Your task to perform on an android device: change notifications settings Image 0: 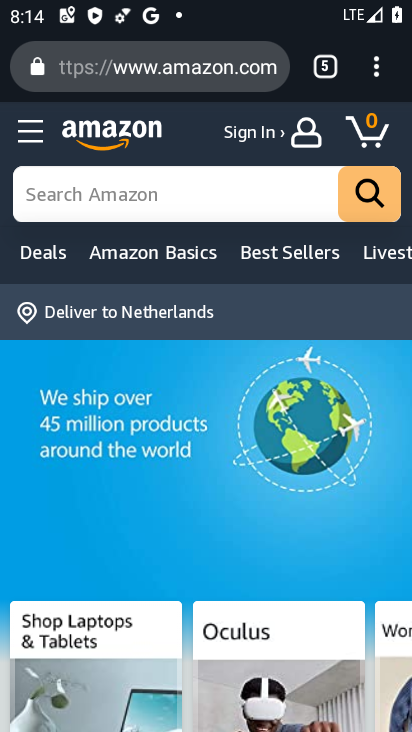
Step 0: press home button
Your task to perform on an android device: change notifications settings Image 1: 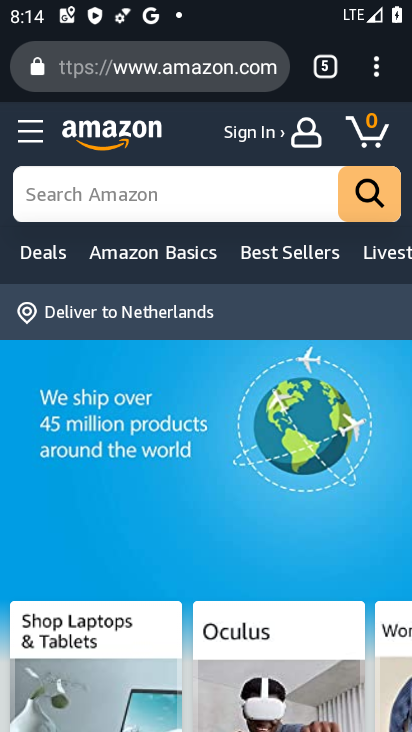
Step 1: press home button
Your task to perform on an android device: change notifications settings Image 2: 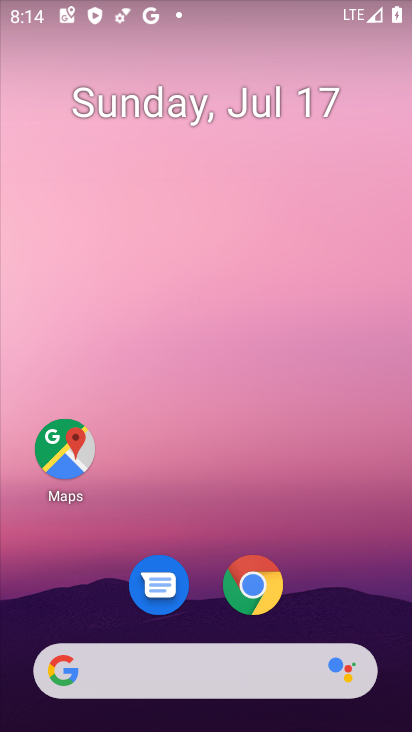
Step 2: drag from (337, 583) to (242, 47)
Your task to perform on an android device: change notifications settings Image 3: 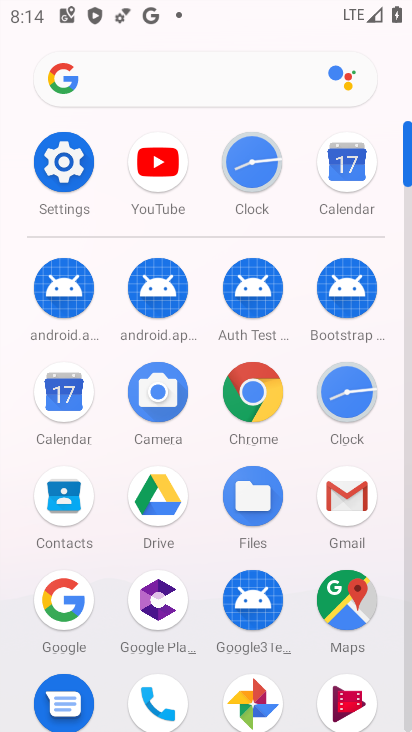
Step 3: click (60, 156)
Your task to perform on an android device: change notifications settings Image 4: 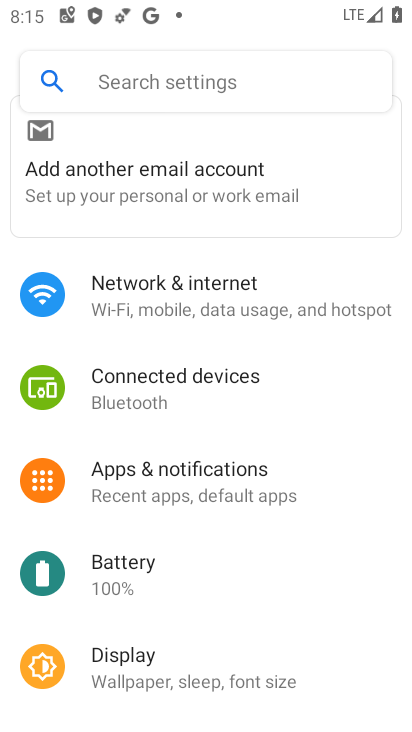
Step 4: click (217, 494)
Your task to perform on an android device: change notifications settings Image 5: 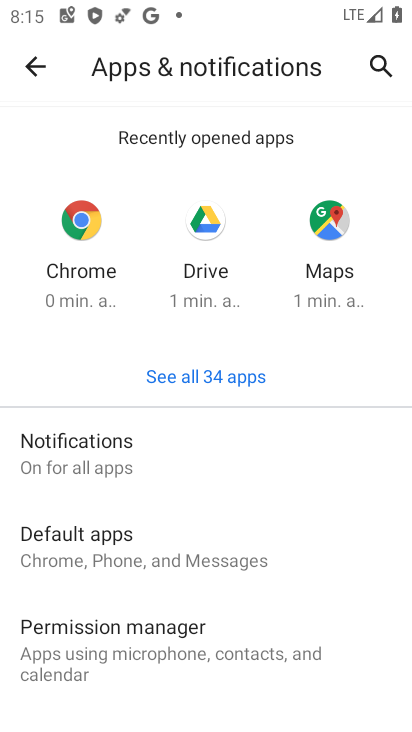
Step 5: click (89, 459)
Your task to perform on an android device: change notifications settings Image 6: 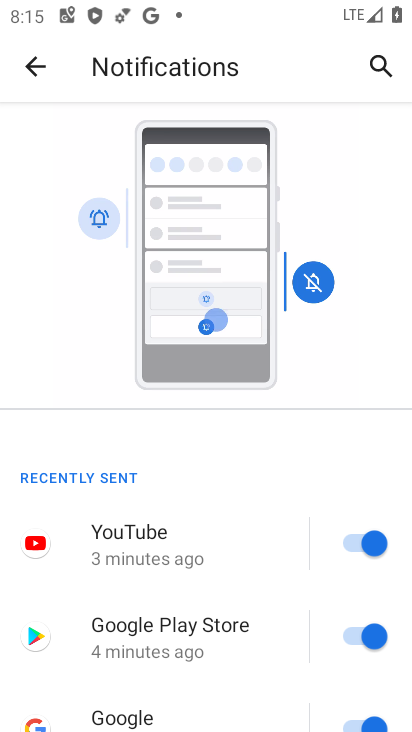
Step 6: drag from (284, 656) to (327, 176)
Your task to perform on an android device: change notifications settings Image 7: 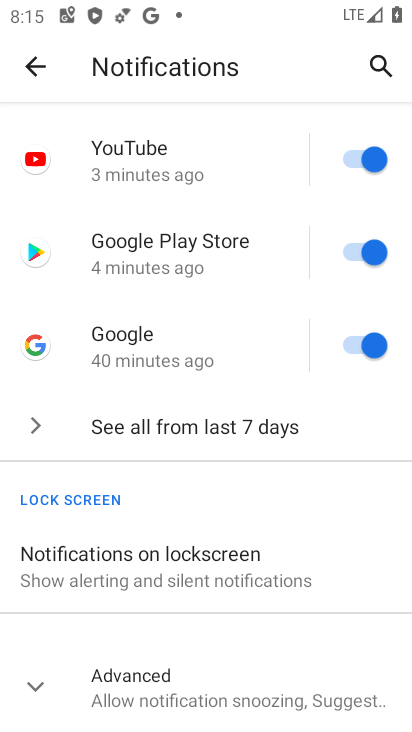
Step 7: click (285, 437)
Your task to perform on an android device: change notifications settings Image 8: 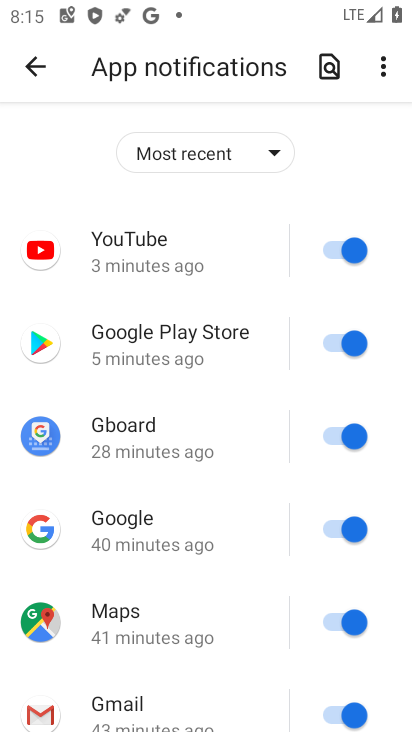
Step 8: click (351, 253)
Your task to perform on an android device: change notifications settings Image 9: 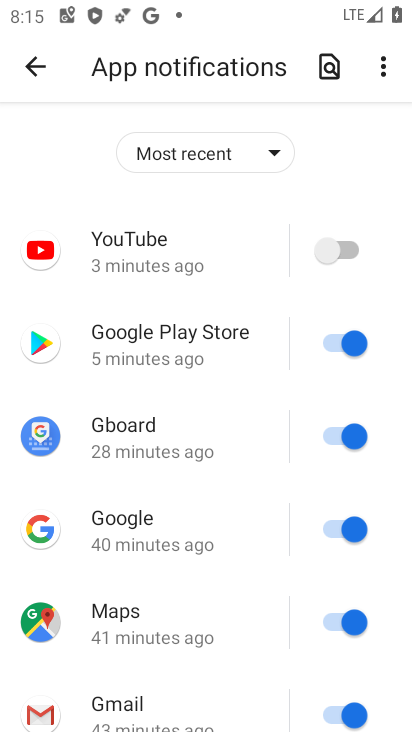
Step 9: click (349, 332)
Your task to perform on an android device: change notifications settings Image 10: 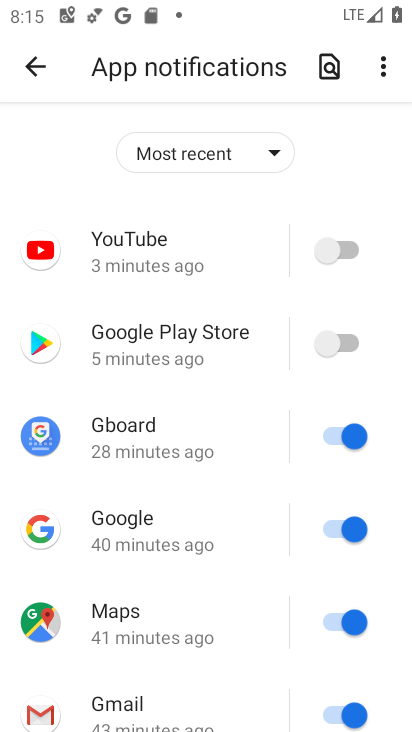
Step 10: click (332, 430)
Your task to perform on an android device: change notifications settings Image 11: 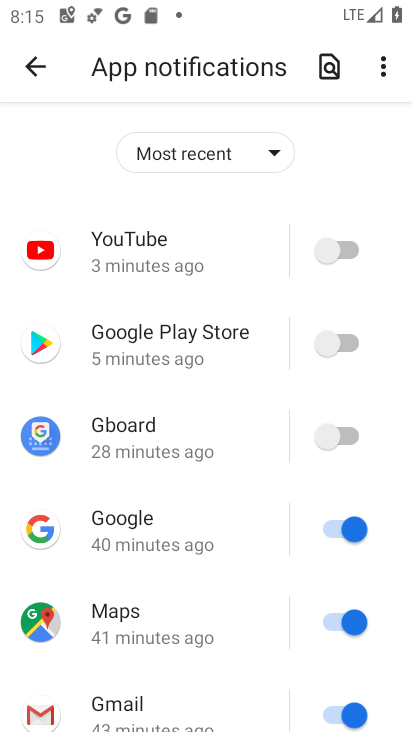
Step 11: click (350, 513)
Your task to perform on an android device: change notifications settings Image 12: 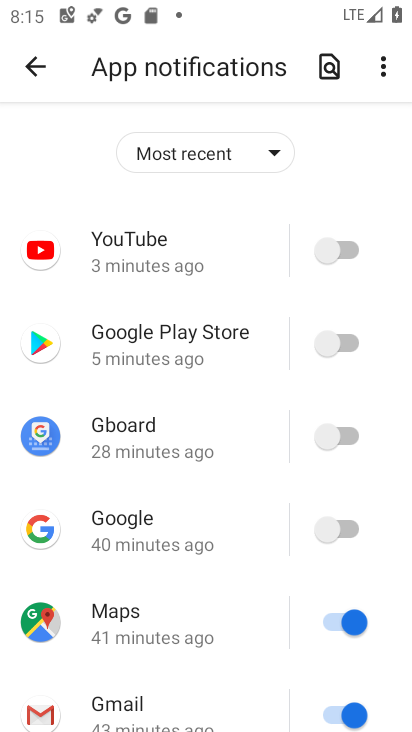
Step 12: click (358, 618)
Your task to perform on an android device: change notifications settings Image 13: 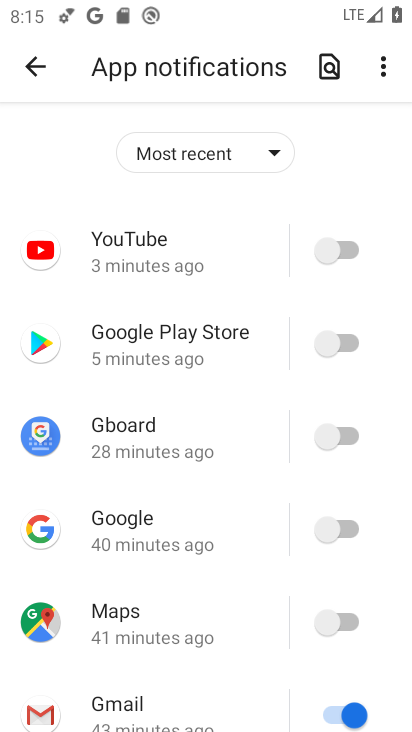
Step 13: drag from (221, 674) to (245, 108)
Your task to perform on an android device: change notifications settings Image 14: 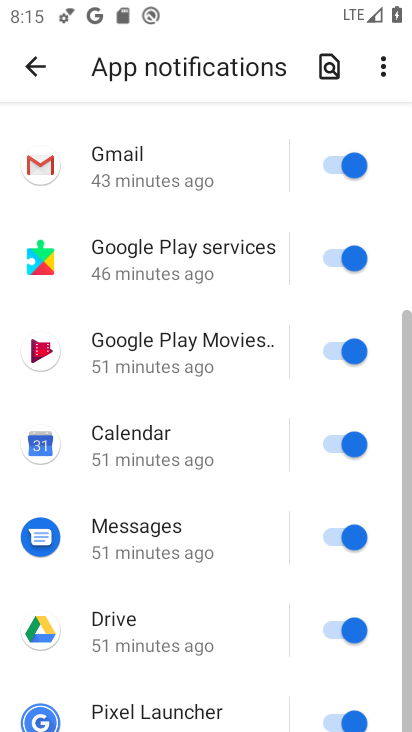
Step 14: click (340, 159)
Your task to perform on an android device: change notifications settings Image 15: 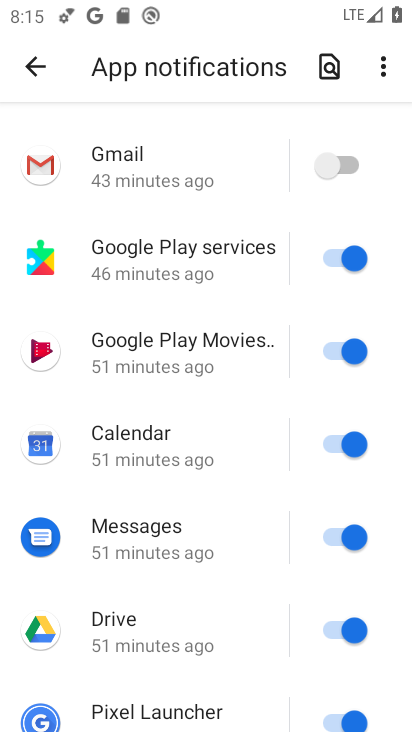
Step 15: click (354, 258)
Your task to perform on an android device: change notifications settings Image 16: 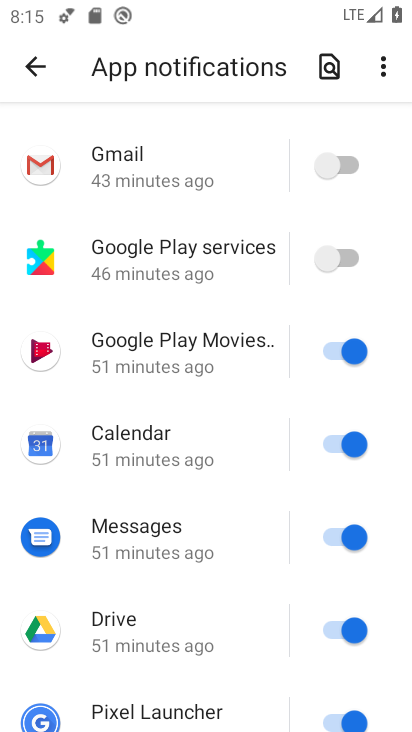
Step 16: click (354, 350)
Your task to perform on an android device: change notifications settings Image 17: 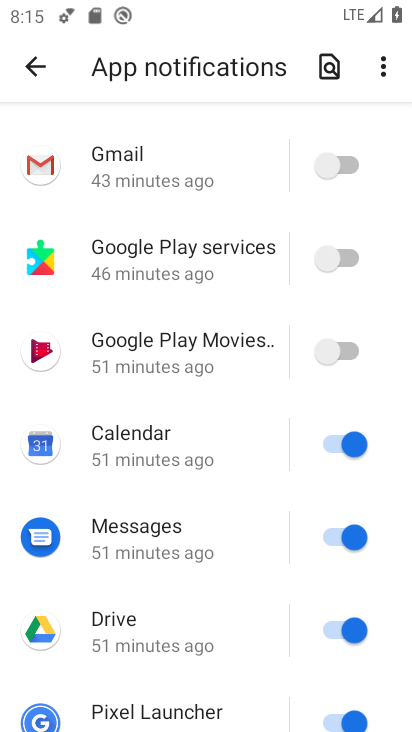
Step 17: click (341, 449)
Your task to perform on an android device: change notifications settings Image 18: 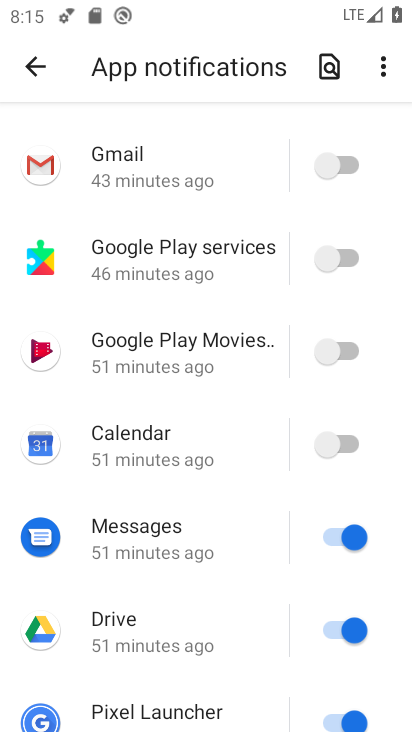
Step 18: click (342, 539)
Your task to perform on an android device: change notifications settings Image 19: 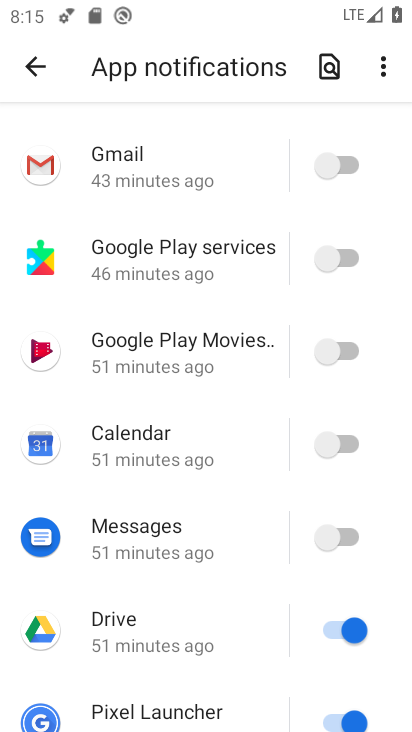
Step 19: click (342, 625)
Your task to perform on an android device: change notifications settings Image 20: 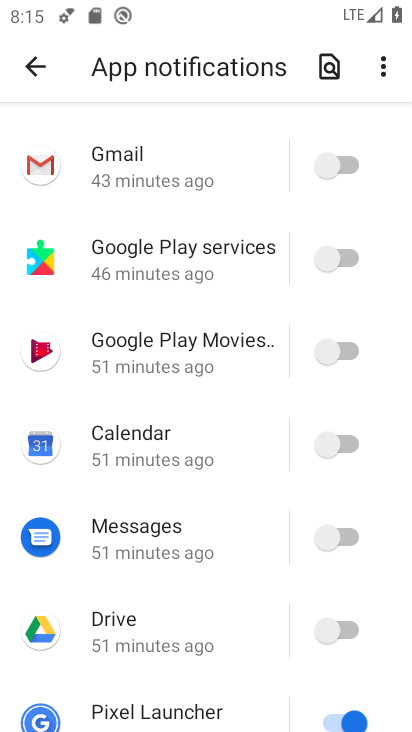
Step 20: drag from (216, 643) to (191, 293)
Your task to perform on an android device: change notifications settings Image 21: 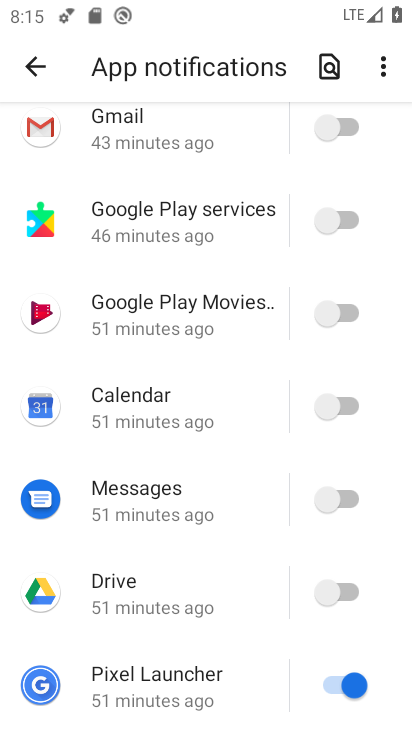
Step 21: click (359, 686)
Your task to perform on an android device: change notifications settings Image 22: 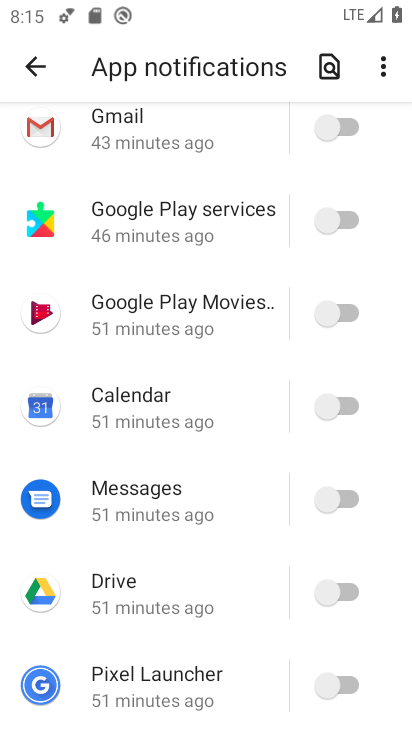
Step 22: task complete